Your task to perform on an android device: toggle show notifications on the lock screen Image 0: 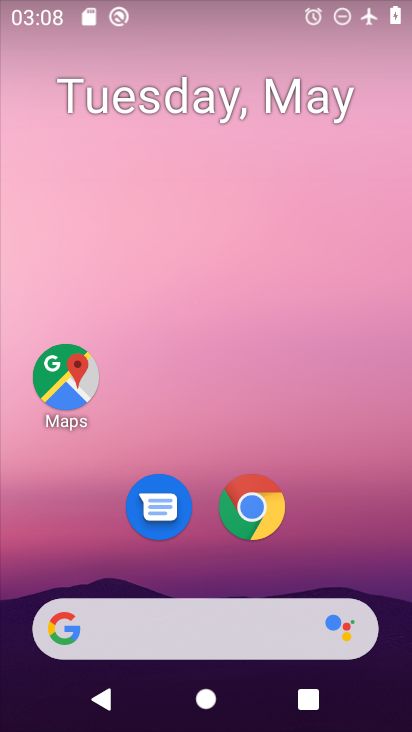
Step 0: drag from (215, 581) to (223, 170)
Your task to perform on an android device: toggle show notifications on the lock screen Image 1: 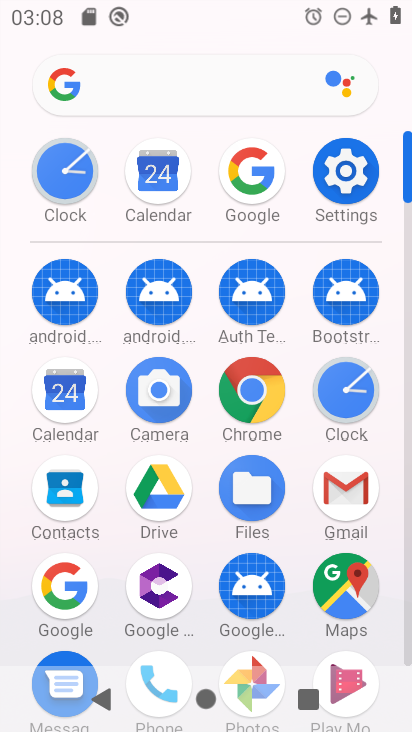
Step 1: click (321, 180)
Your task to perform on an android device: toggle show notifications on the lock screen Image 2: 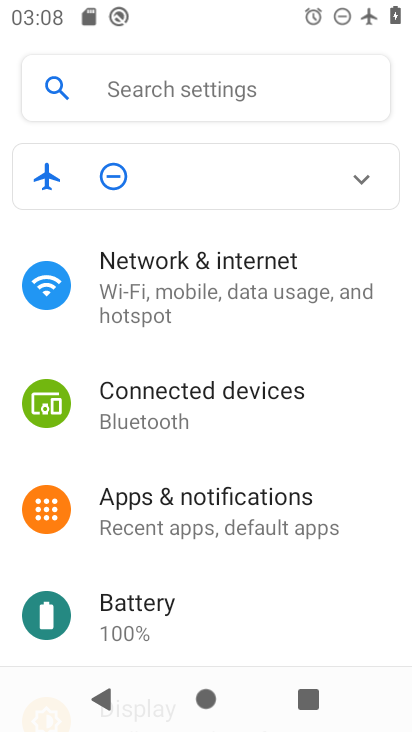
Step 2: click (204, 495)
Your task to perform on an android device: toggle show notifications on the lock screen Image 3: 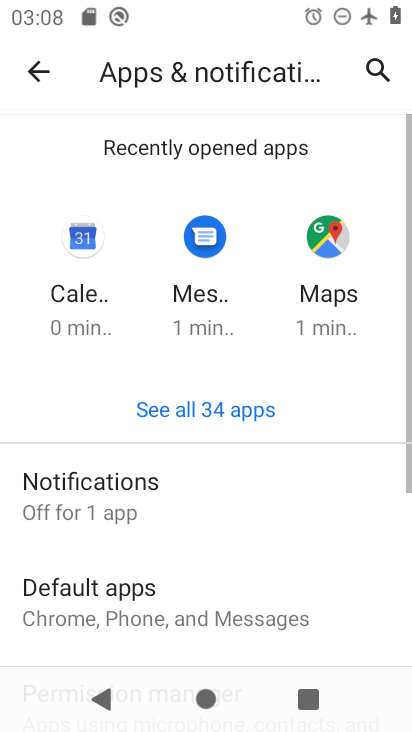
Step 3: click (211, 504)
Your task to perform on an android device: toggle show notifications on the lock screen Image 4: 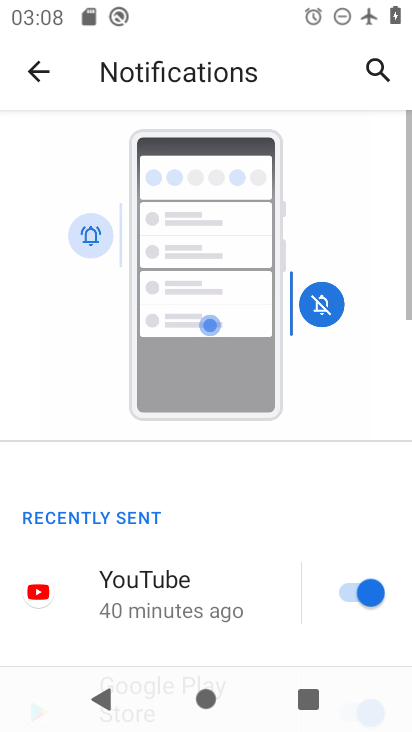
Step 4: drag from (238, 556) to (198, 133)
Your task to perform on an android device: toggle show notifications on the lock screen Image 5: 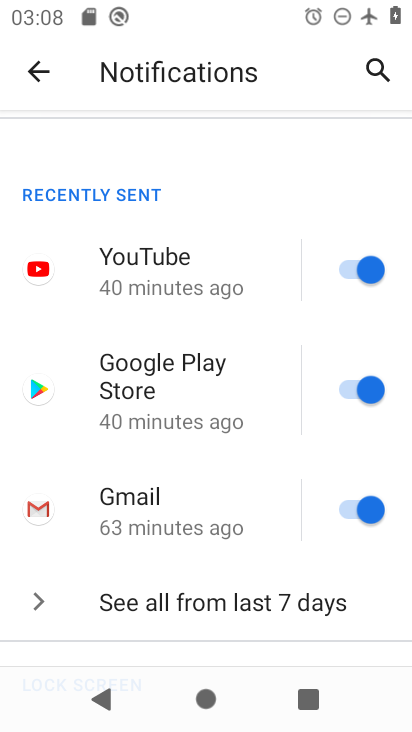
Step 5: drag from (239, 482) to (230, 112)
Your task to perform on an android device: toggle show notifications on the lock screen Image 6: 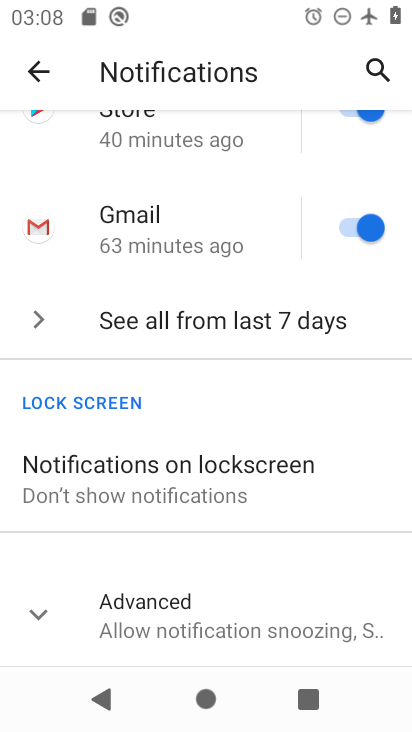
Step 6: click (259, 494)
Your task to perform on an android device: toggle show notifications on the lock screen Image 7: 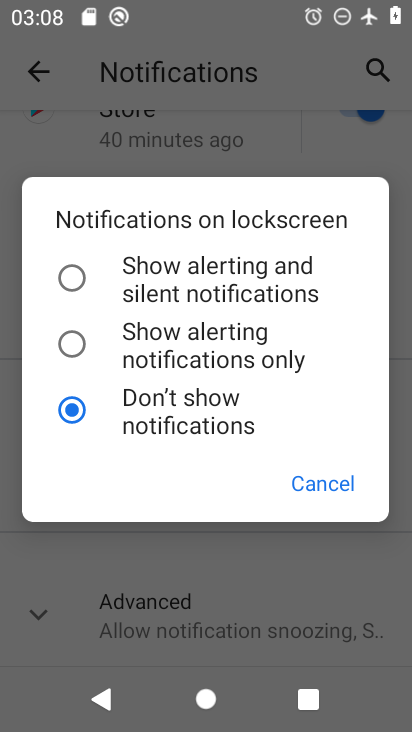
Step 7: click (196, 290)
Your task to perform on an android device: toggle show notifications on the lock screen Image 8: 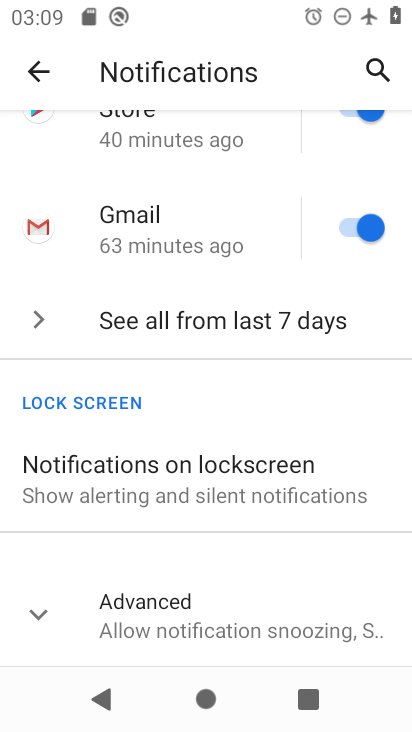
Step 8: task complete